Your task to perform on an android device: delete the emails in spam in the gmail app Image 0: 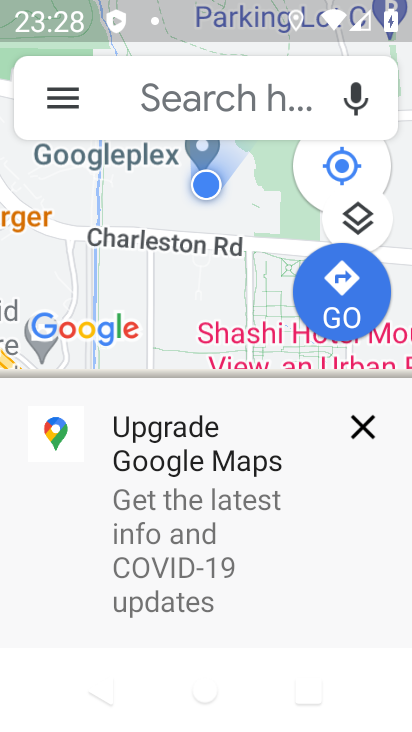
Step 0: press home button
Your task to perform on an android device: delete the emails in spam in the gmail app Image 1: 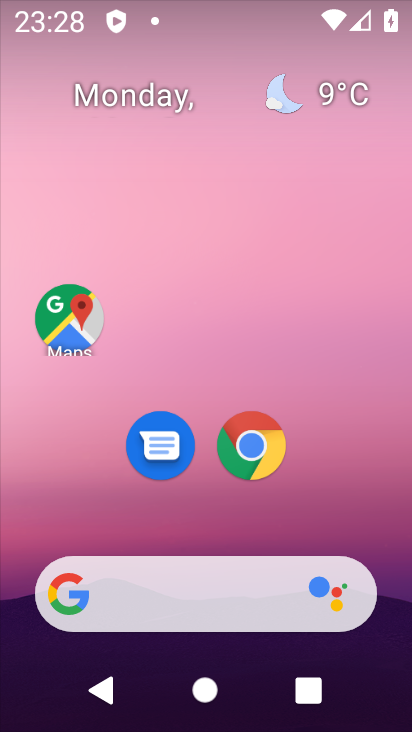
Step 1: drag from (282, 605) to (290, 4)
Your task to perform on an android device: delete the emails in spam in the gmail app Image 2: 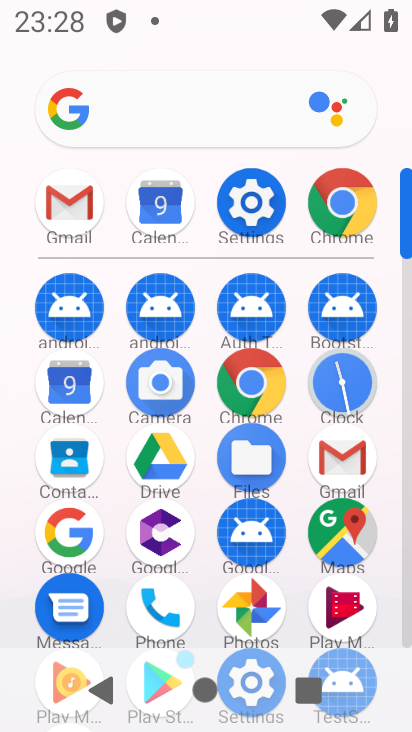
Step 2: click (344, 446)
Your task to perform on an android device: delete the emails in spam in the gmail app Image 3: 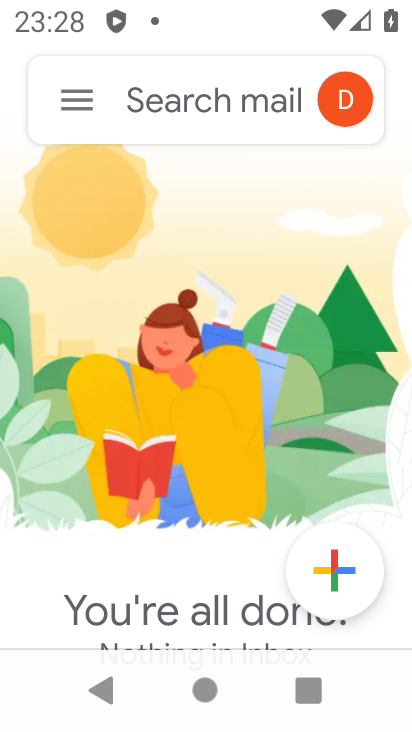
Step 3: click (60, 93)
Your task to perform on an android device: delete the emails in spam in the gmail app Image 4: 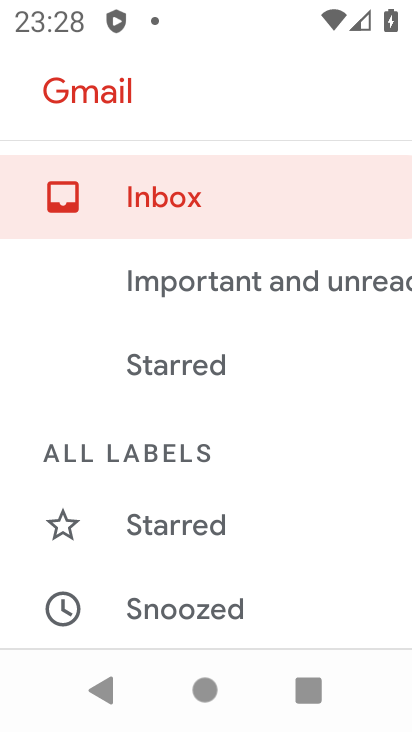
Step 4: drag from (147, 609) to (169, 119)
Your task to perform on an android device: delete the emails in spam in the gmail app Image 5: 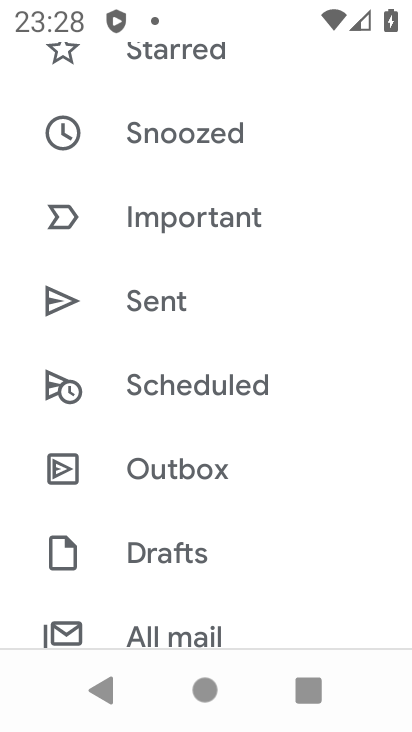
Step 5: drag from (187, 596) to (249, 209)
Your task to perform on an android device: delete the emails in spam in the gmail app Image 6: 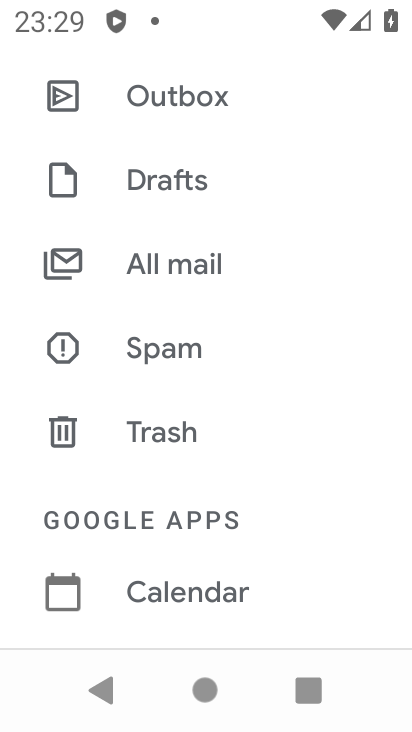
Step 6: click (186, 343)
Your task to perform on an android device: delete the emails in spam in the gmail app Image 7: 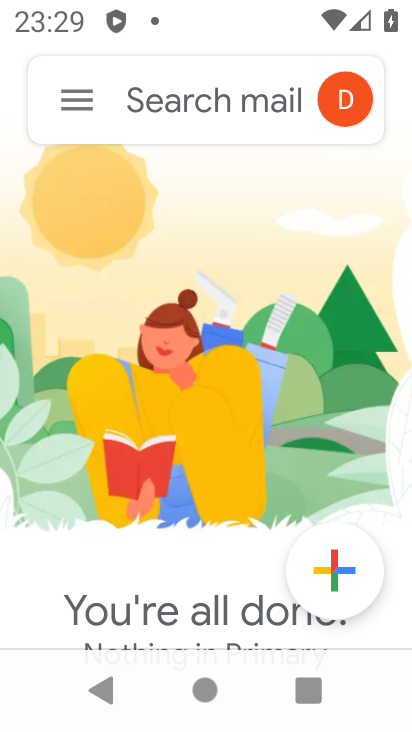
Step 7: task complete